Your task to perform on an android device: Open settings Image 0: 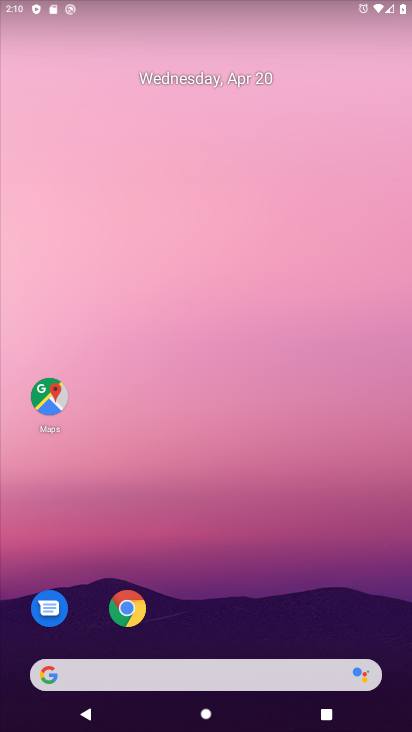
Step 0: drag from (230, 602) to (265, 115)
Your task to perform on an android device: Open settings Image 1: 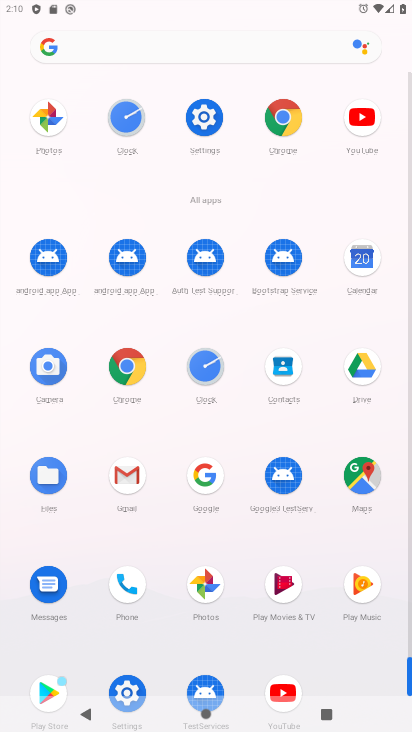
Step 1: click (211, 131)
Your task to perform on an android device: Open settings Image 2: 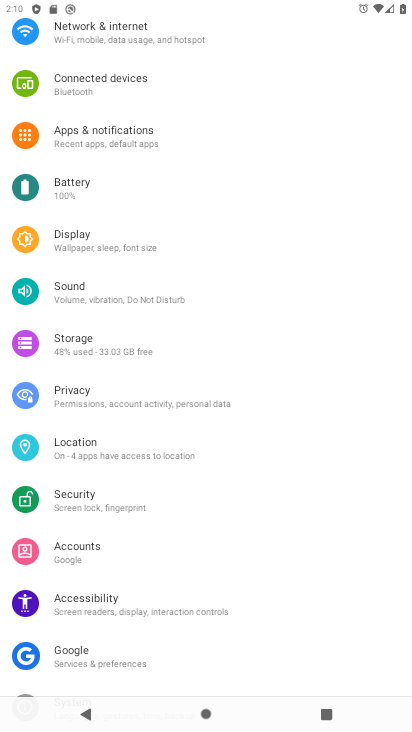
Step 2: task complete